Your task to perform on an android device: Go to eBay Image 0: 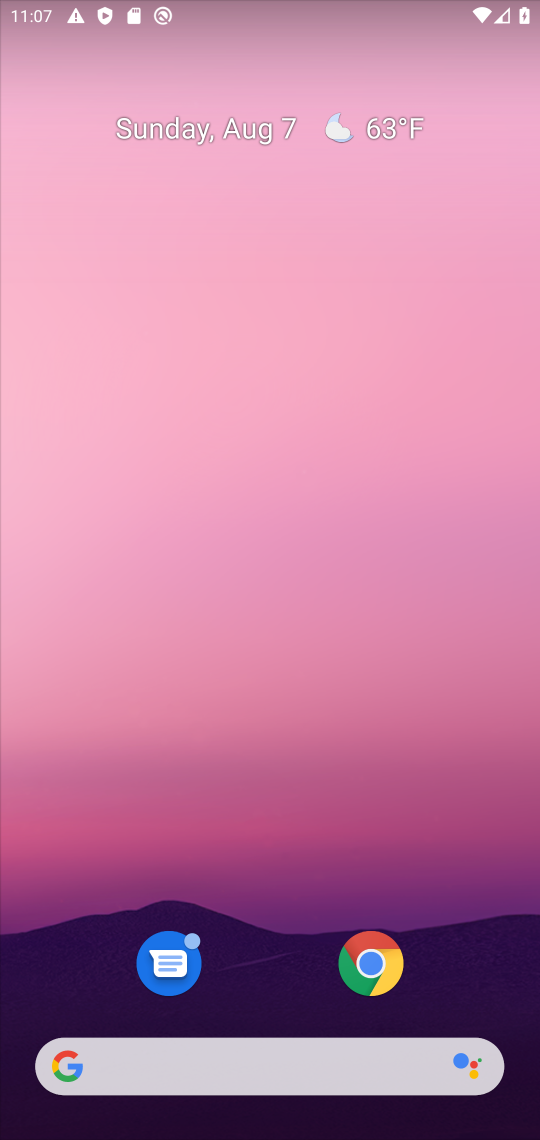
Step 0: drag from (458, 984) to (261, 0)
Your task to perform on an android device: Go to eBay Image 1: 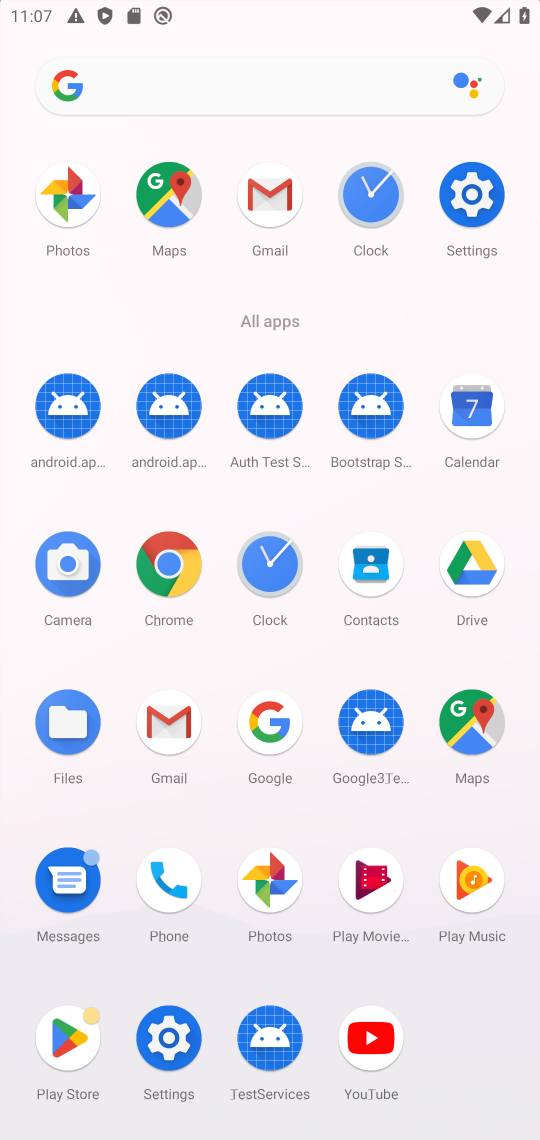
Step 1: click (264, 752)
Your task to perform on an android device: Go to eBay Image 2: 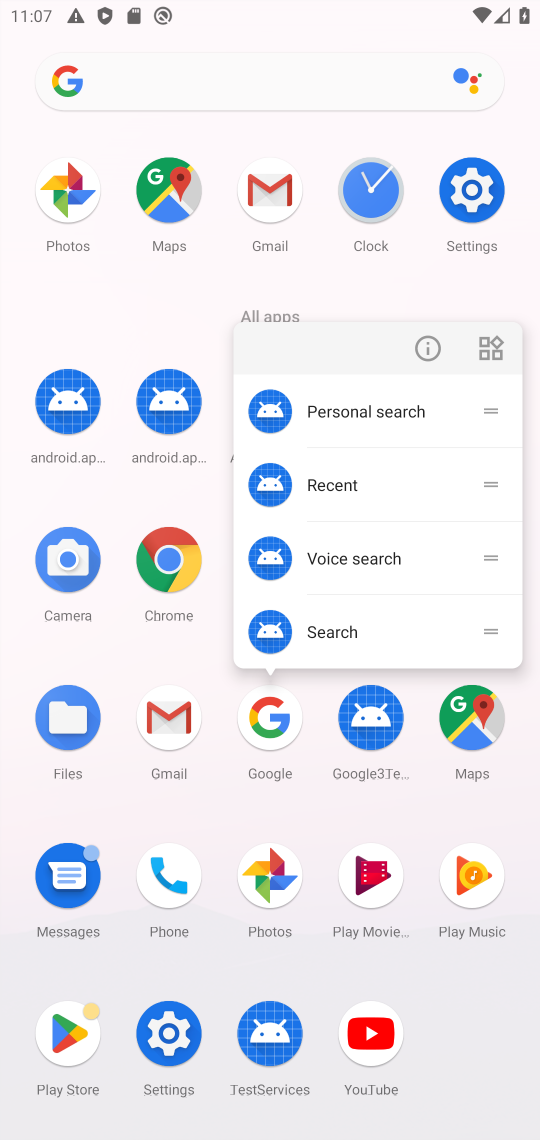
Step 2: click (265, 752)
Your task to perform on an android device: Go to eBay Image 3: 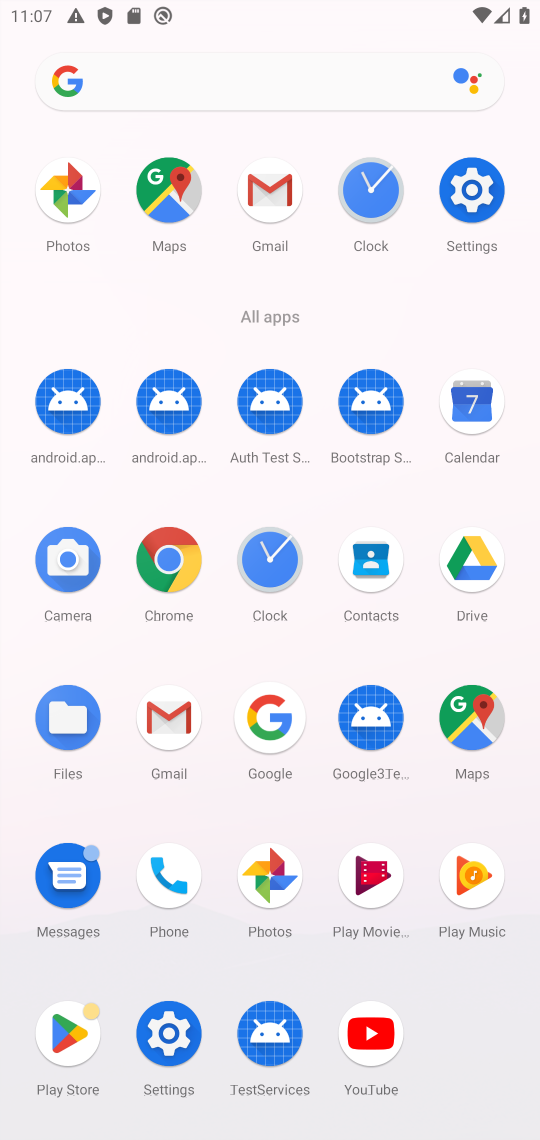
Step 3: click (250, 719)
Your task to perform on an android device: Go to eBay Image 4: 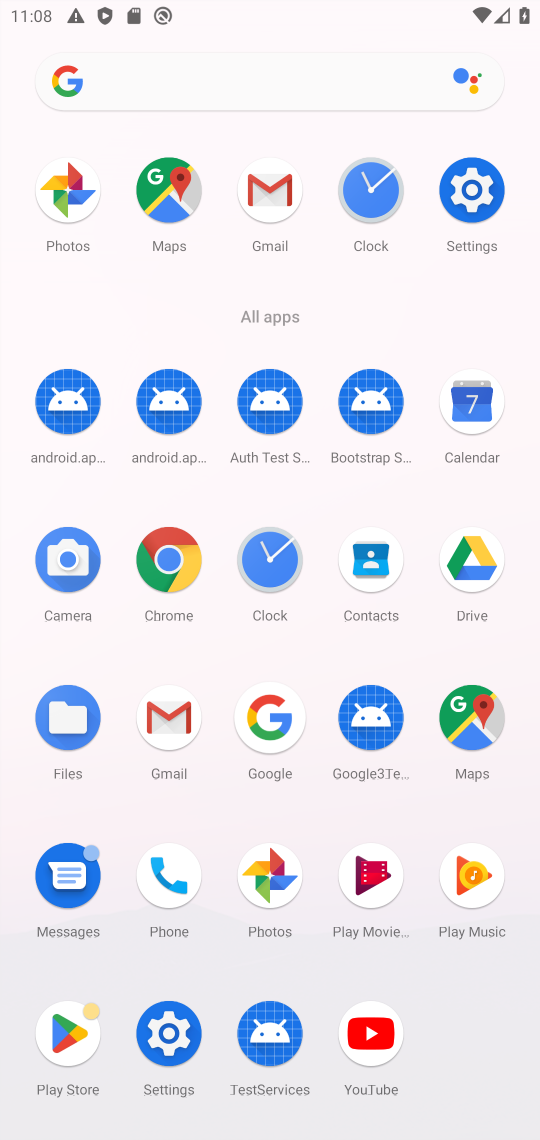
Step 4: click (243, 715)
Your task to perform on an android device: Go to eBay Image 5: 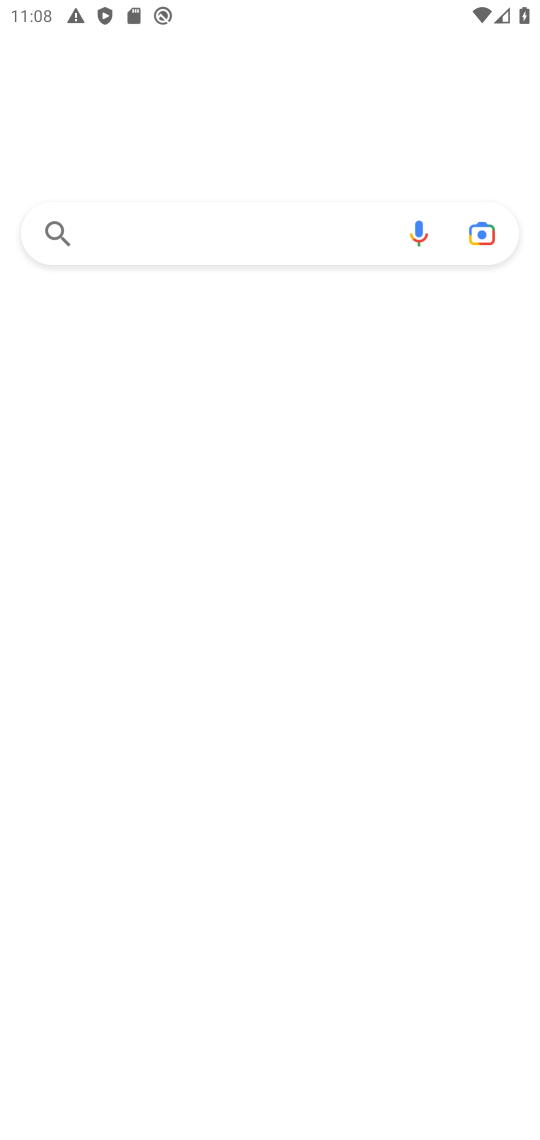
Step 5: click (200, 248)
Your task to perform on an android device: Go to eBay Image 6: 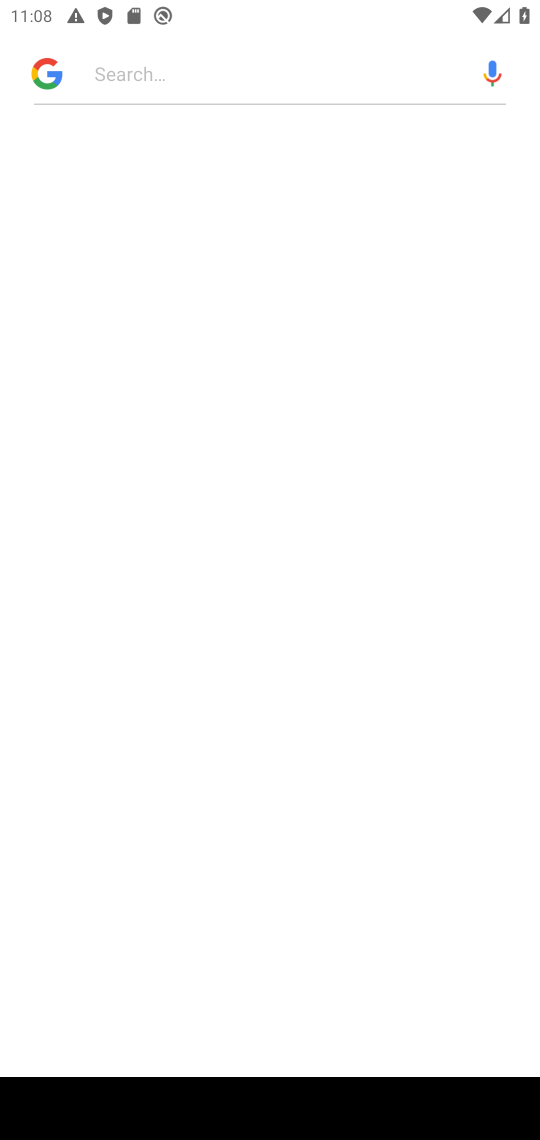
Step 6: type "eBay"
Your task to perform on an android device: Go to eBay Image 7: 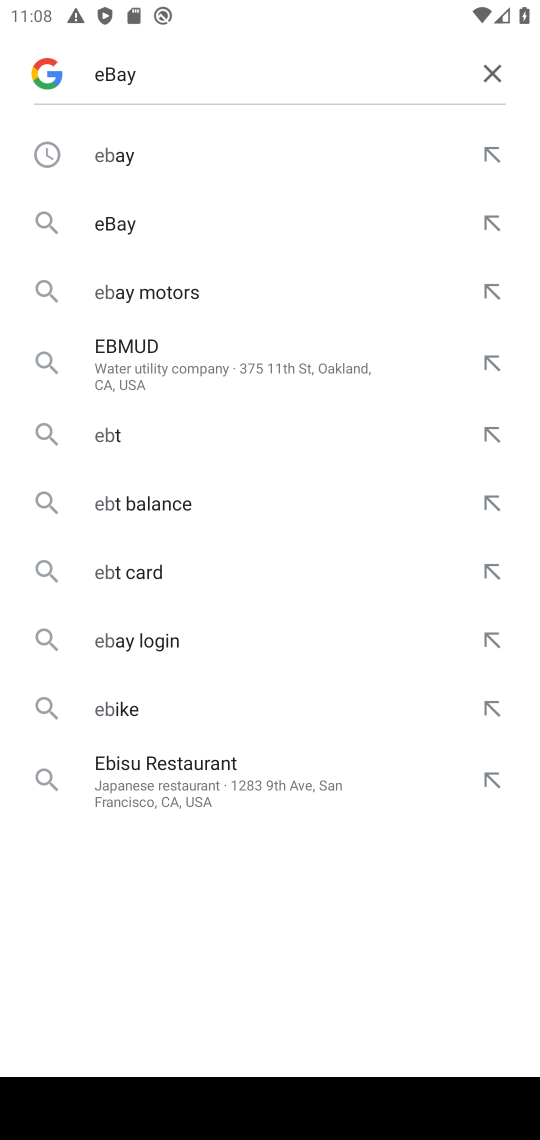
Step 7: click (125, 180)
Your task to perform on an android device: Go to eBay Image 8: 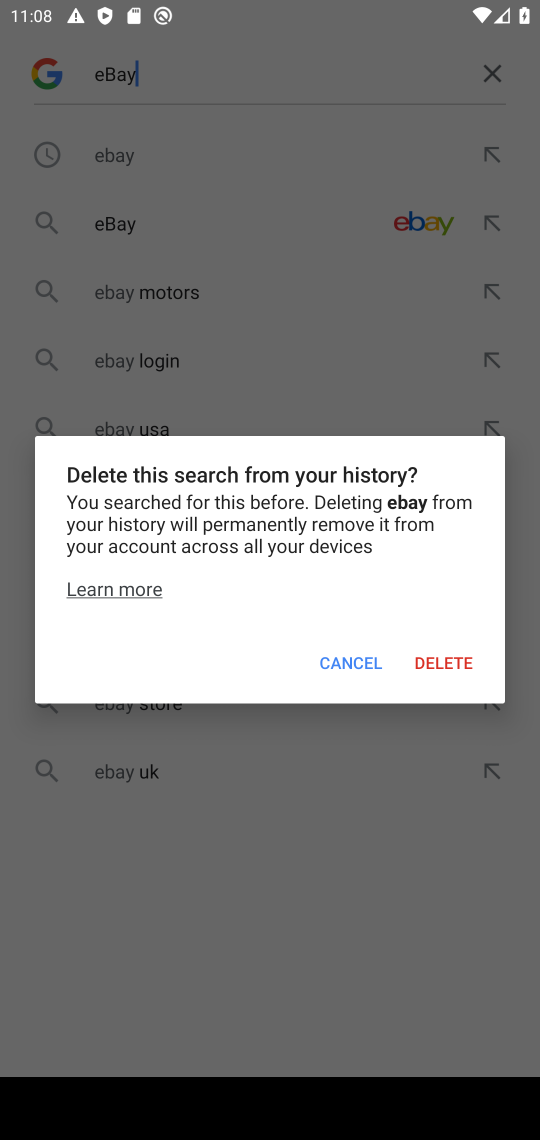
Step 8: click (364, 671)
Your task to perform on an android device: Go to eBay Image 9: 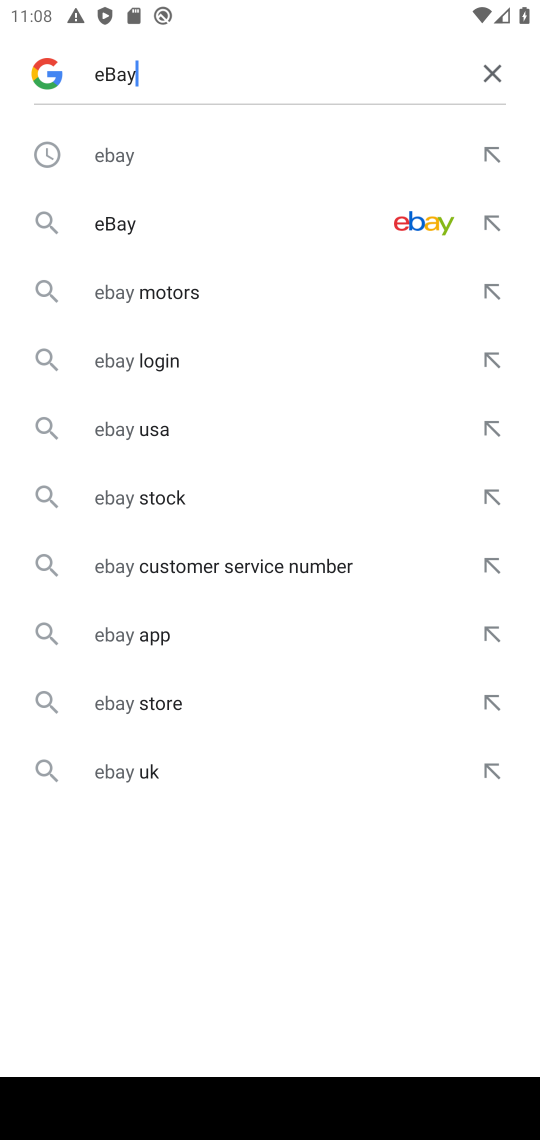
Step 9: click (137, 228)
Your task to perform on an android device: Go to eBay Image 10: 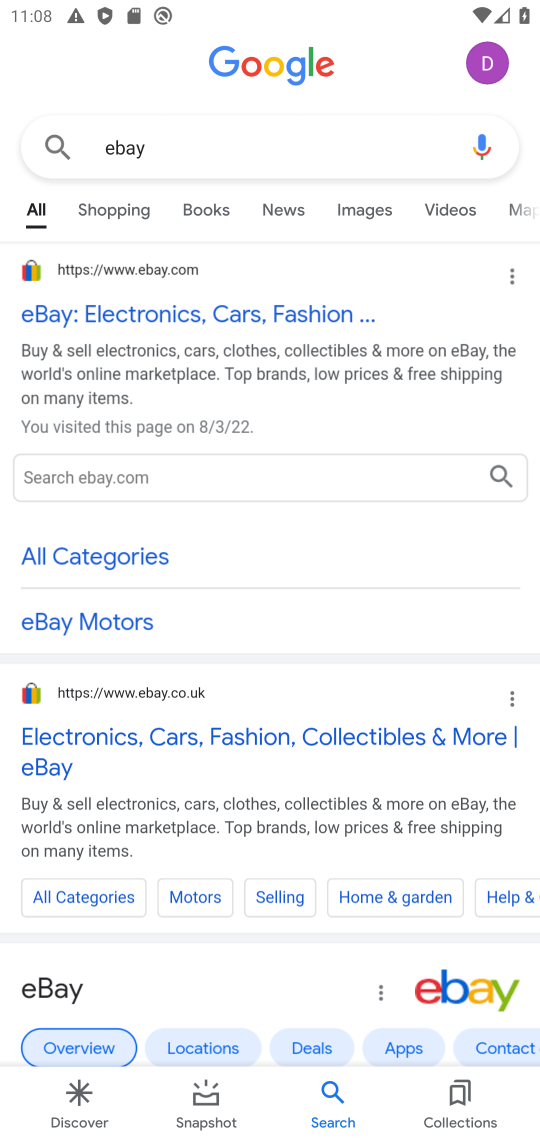
Step 10: task complete